Your task to perform on an android device: star an email in the gmail app Image 0: 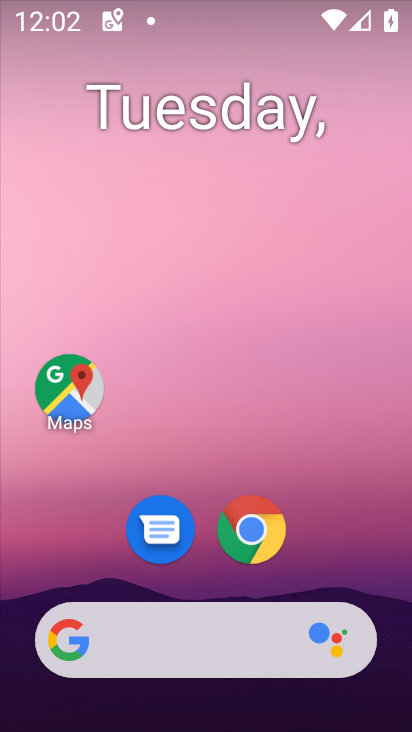
Step 0: press home button
Your task to perform on an android device: star an email in the gmail app Image 1: 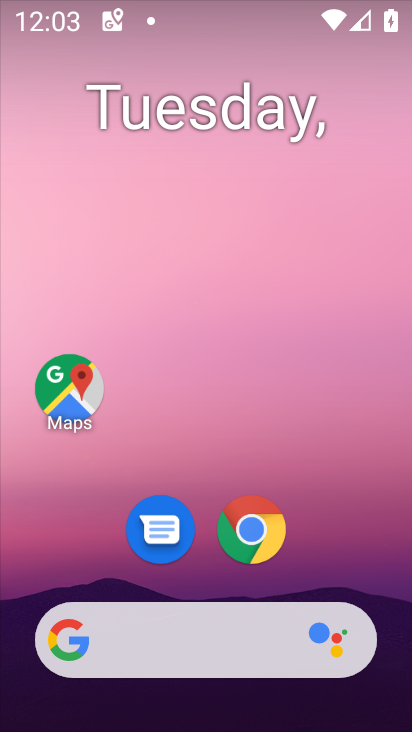
Step 1: drag from (255, 684) to (270, 277)
Your task to perform on an android device: star an email in the gmail app Image 2: 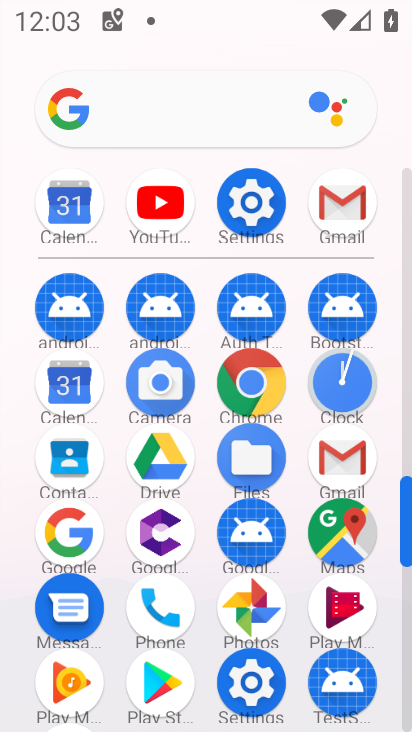
Step 2: click (345, 443)
Your task to perform on an android device: star an email in the gmail app Image 3: 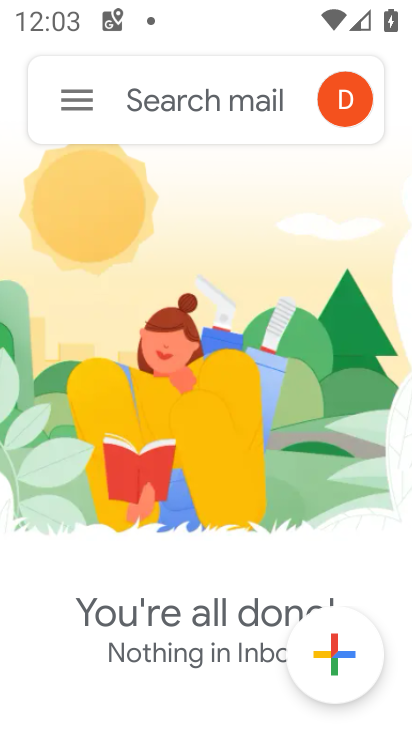
Step 3: click (64, 116)
Your task to perform on an android device: star an email in the gmail app Image 4: 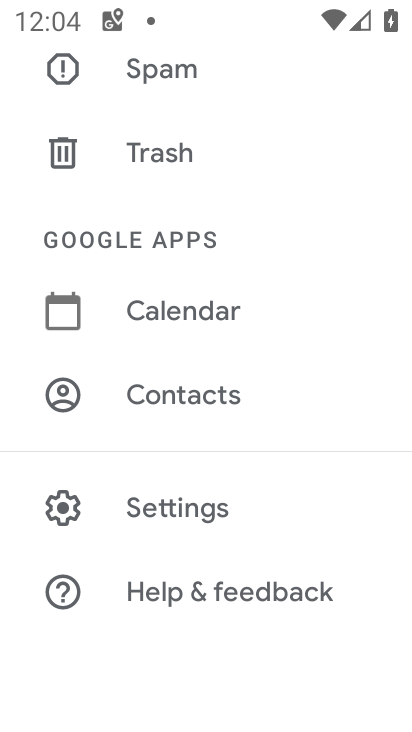
Step 4: drag from (162, 177) to (161, 243)
Your task to perform on an android device: star an email in the gmail app Image 5: 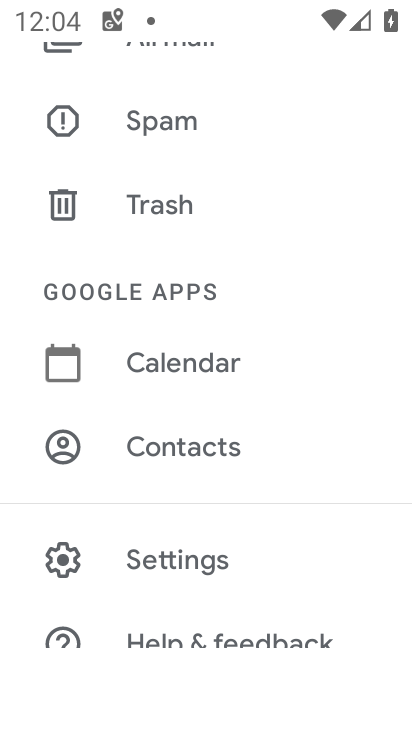
Step 5: drag from (161, 243) to (169, 286)
Your task to perform on an android device: star an email in the gmail app Image 6: 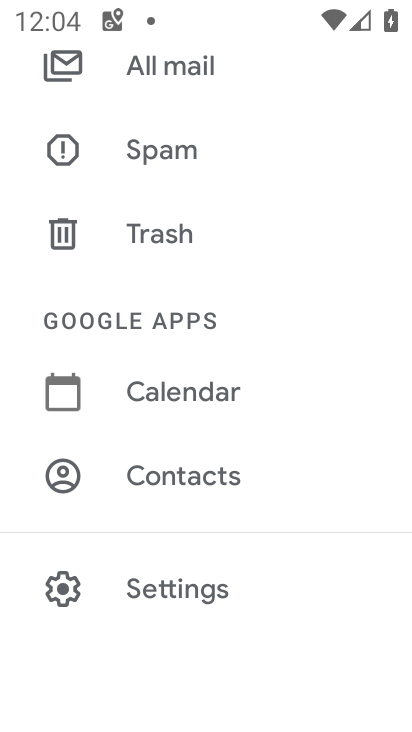
Step 6: click (176, 61)
Your task to perform on an android device: star an email in the gmail app Image 7: 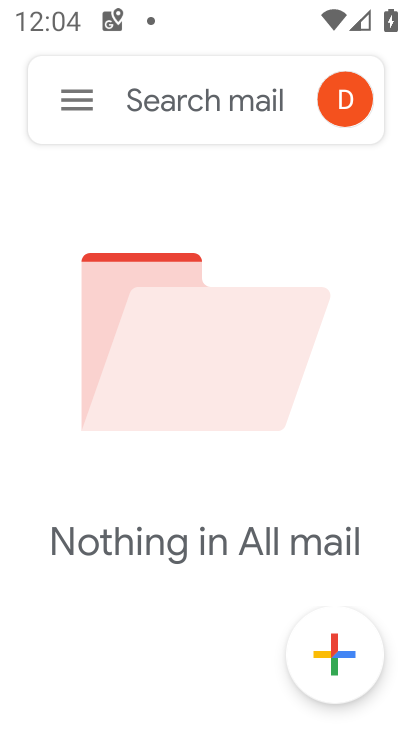
Step 7: task complete